Your task to perform on an android device: show emergency info Image 0: 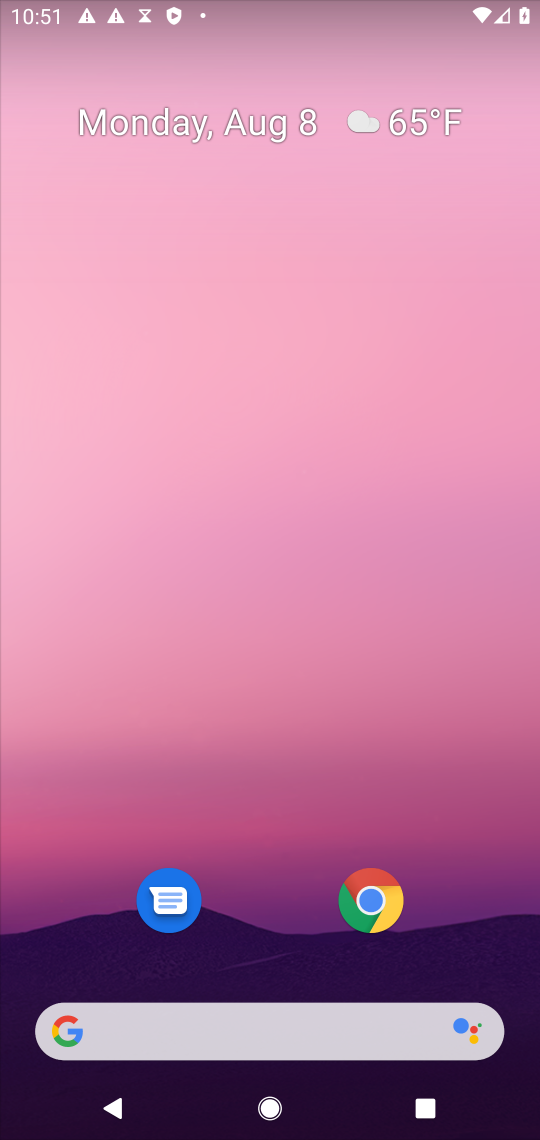
Step 0: drag from (264, 941) to (204, 123)
Your task to perform on an android device: show emergency info Image 1: 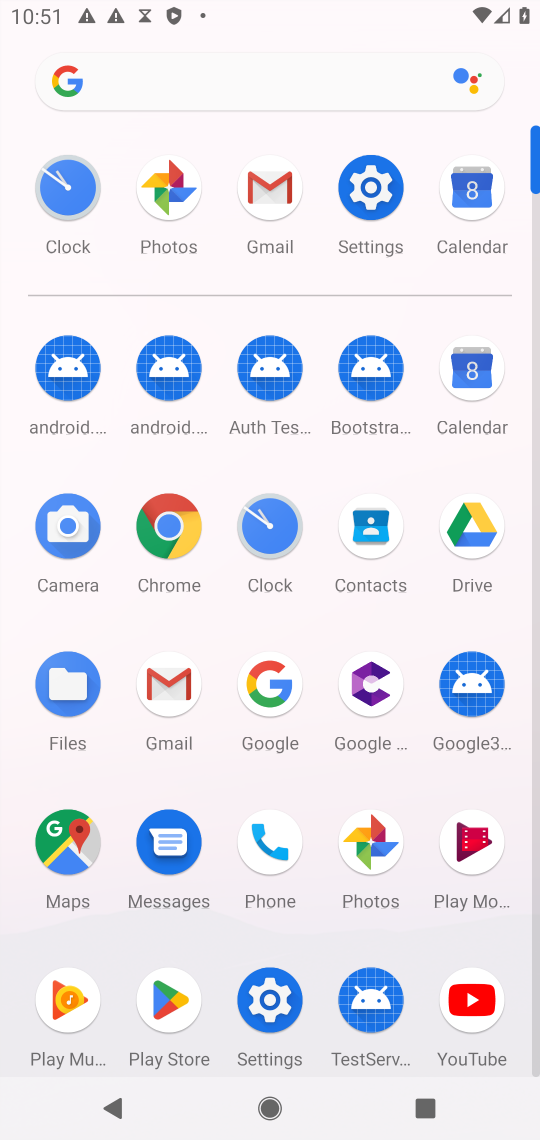
Step 1: click (361, 196)
Your task to perform on an android device: show emergency info Image 2: 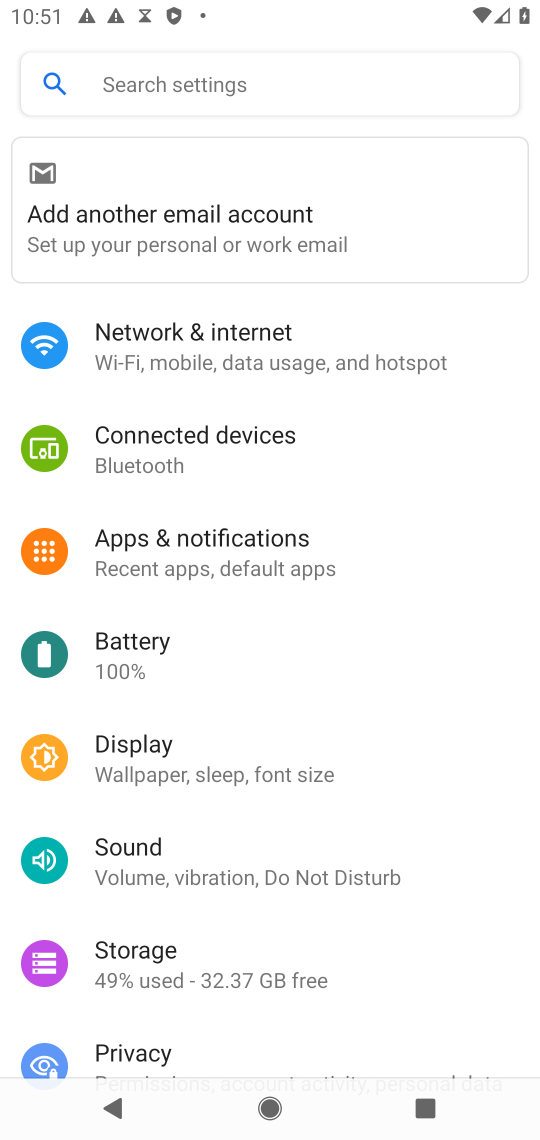
Step 2: drag from (186, 945) to (186, 582)
Your task to perform on an android device: show emergency info Image 3: 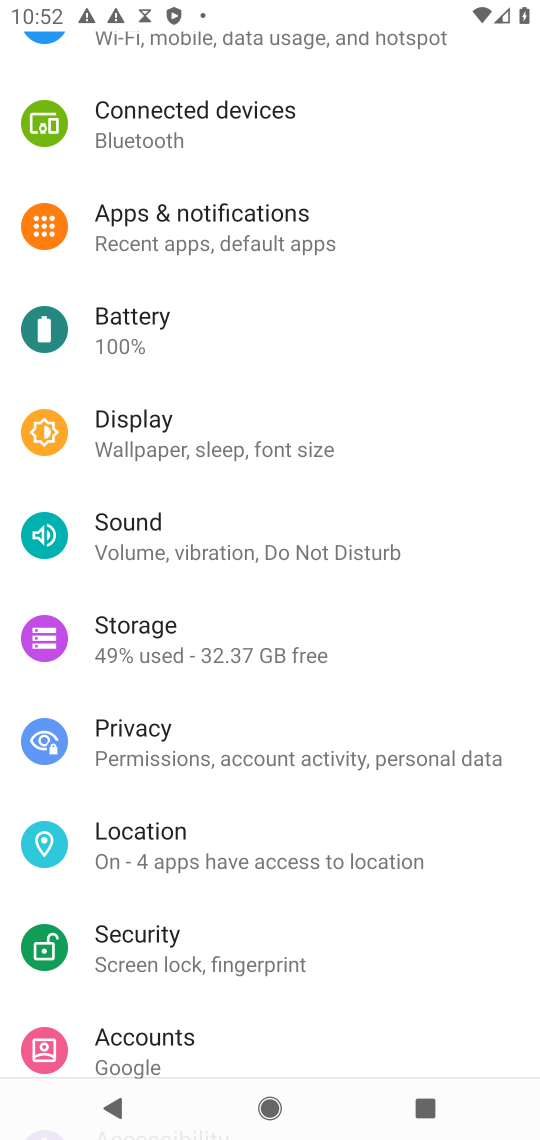
Step 3: drag from (208, 848) to (210, 286)
Your task to perform on an android device: show emergency info Image 4: 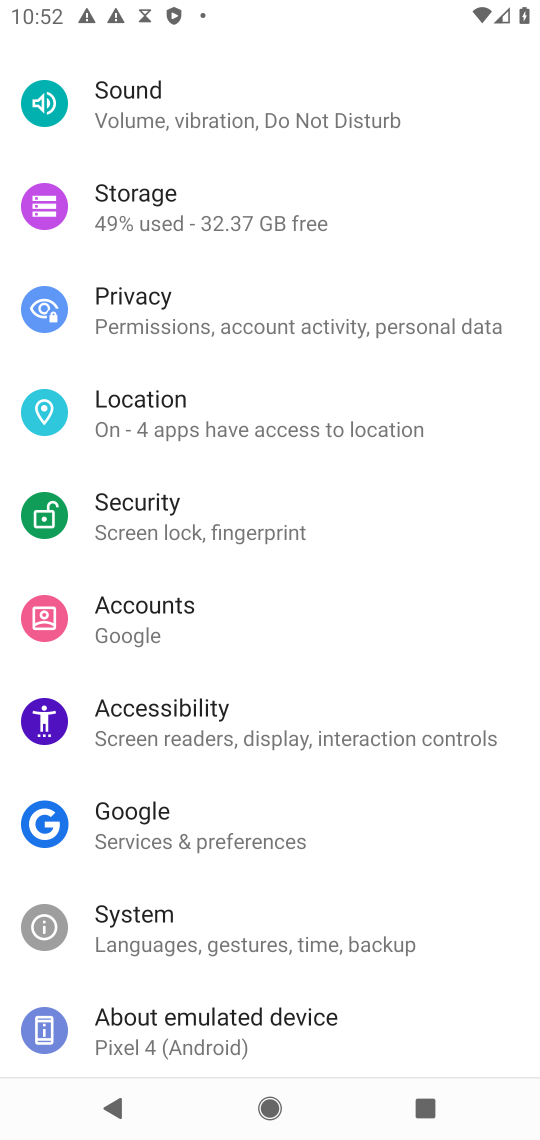
Step 4: click (154, 1029)
Your task to perform on an android device: show emergency info Image 5: 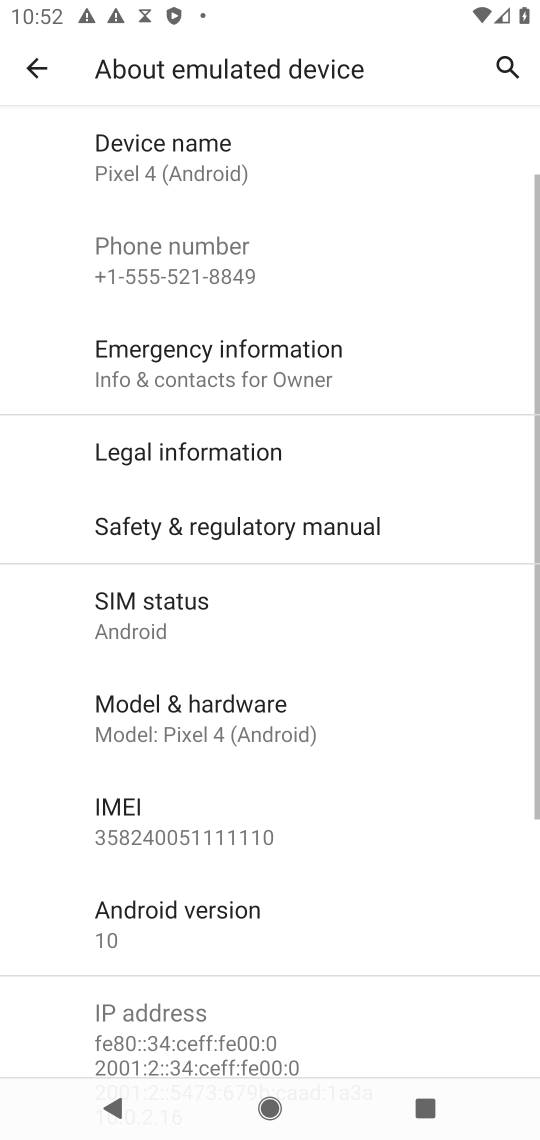
Step 5: click (195, 344)
Your task to perform on an android device: show emergency info Image 6: 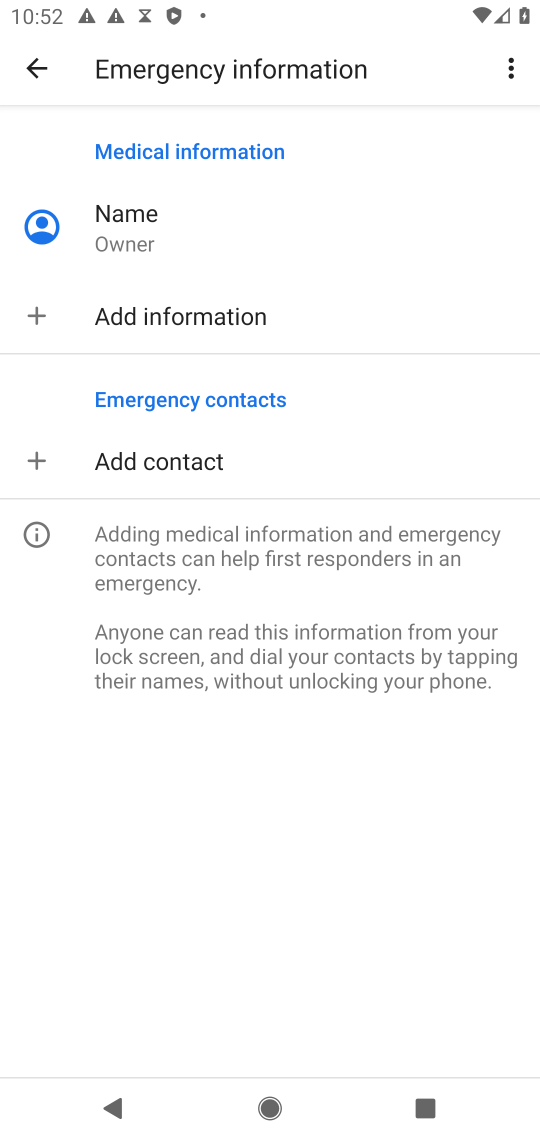
Step 6: task complete